Your task to perform on an android device: empty trash in the gmail app Image 0: 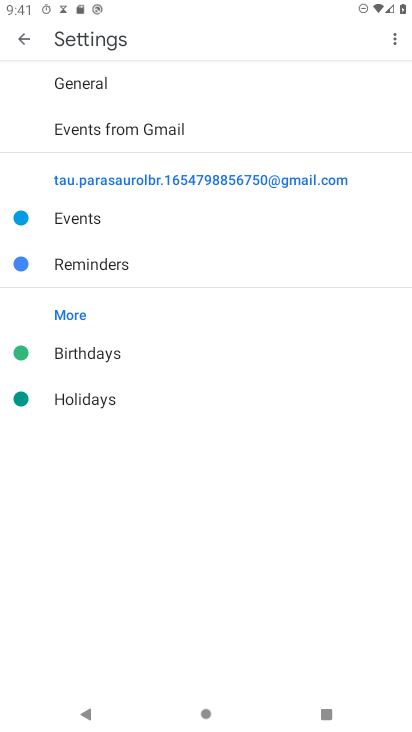
Step 0: press back button
Your task to perform on an android device: empty trash in the gmail app Image 1: 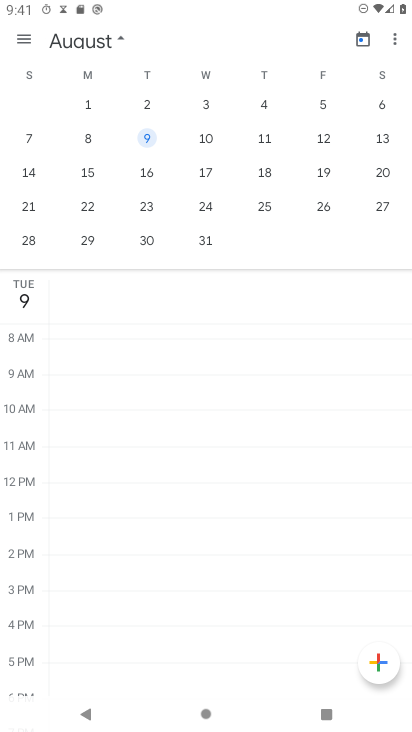
Step 1: press home button
Your task to perform on an android device: empty trash in the gmail app Image 2: 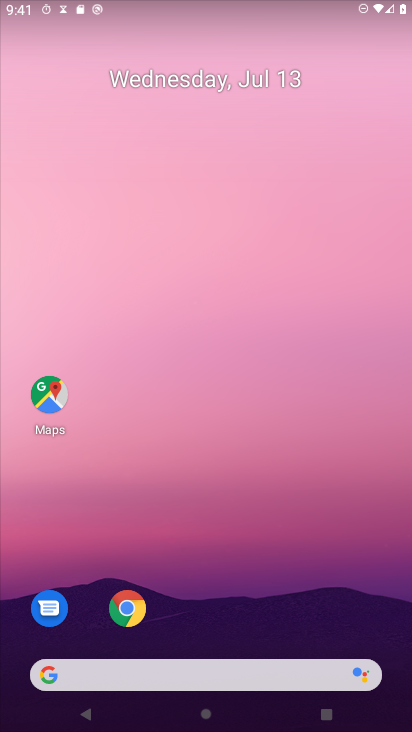
Step 2: drag from (264, 619) to (184, 97)
Your task to perform on an android device: empty trash in the gmail app Image 3: 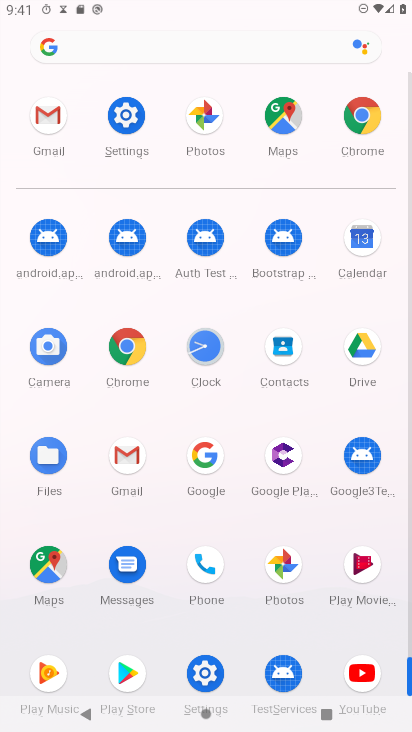
Step 3: click (126, 457)
Your task to perform on an android device: empty trash in the gmail app Image 4: 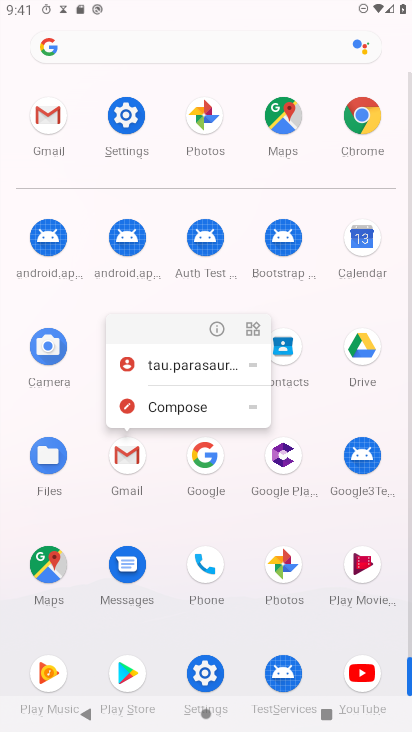
Step 4: click (136, 443)
Your task to perform on an android device: empty trash in the gmail app Image 5: 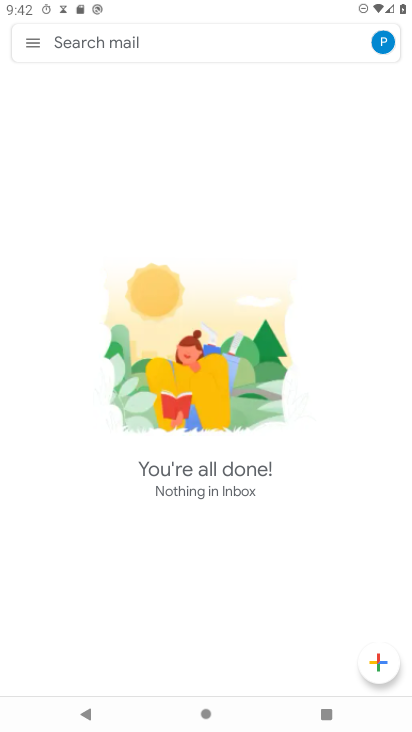
Step 5: click (34, 45)
Your task to perform on an android device: empty trash in the gmail app Image 6: 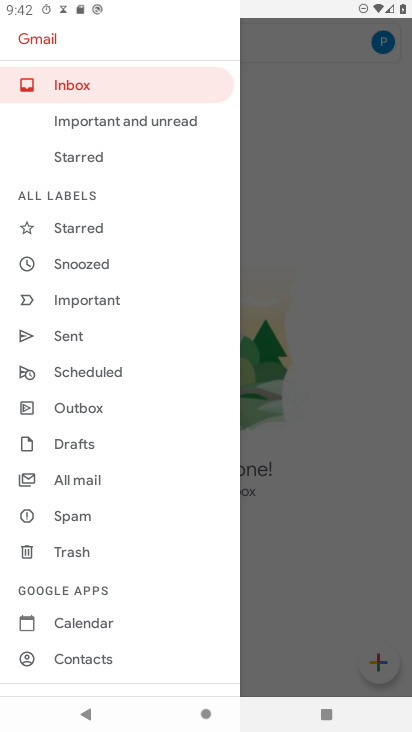
Step 6: click (69, 487)
Your task to perform on an android device: empty trash in the gmail app Image 7: 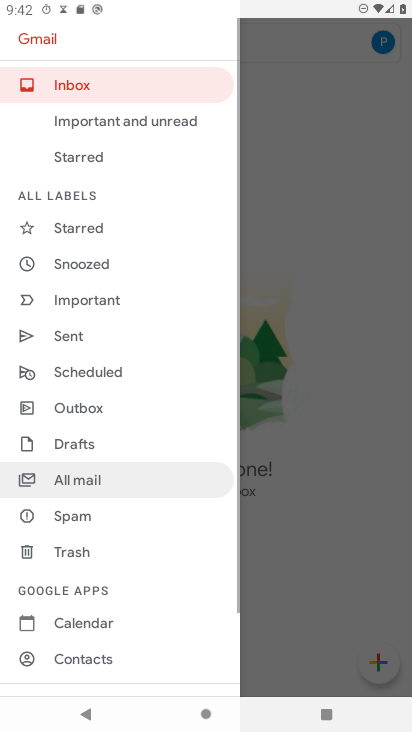
Step 7: click (71, 487)
Your task to perform on an android device: empty trash in the gmail app Image 8: 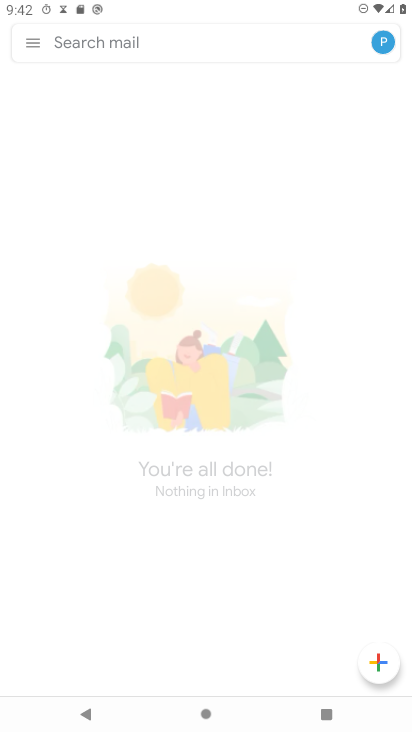
Step 8: click (68, 483)
Your task to perform on an android device: empty trash in the gmail app Image 9: 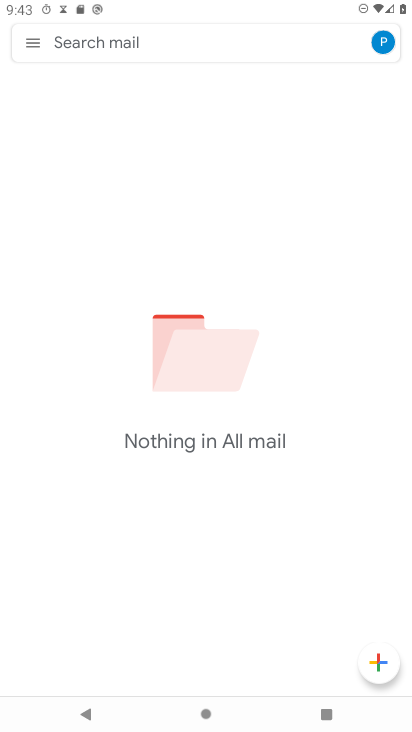
Step 9: press back button
Your task to perform on an android device: empty trash in the gmail app Image 10: 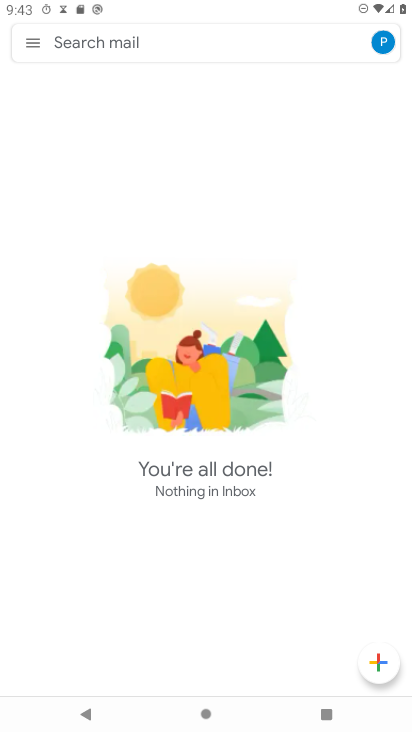
Step 10: click (18, 37)
Your task to perform on an android device: empty trash in the gmail app Image 11: 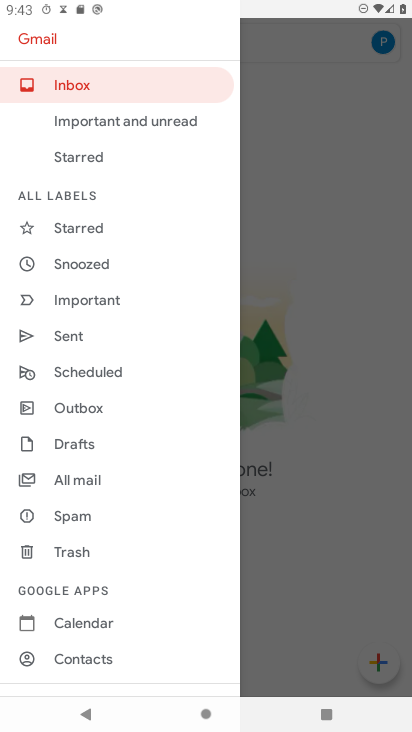
Step 11: click (78, 548)
Your task to perform on an android device: empty trash in the gmail app Image 12: 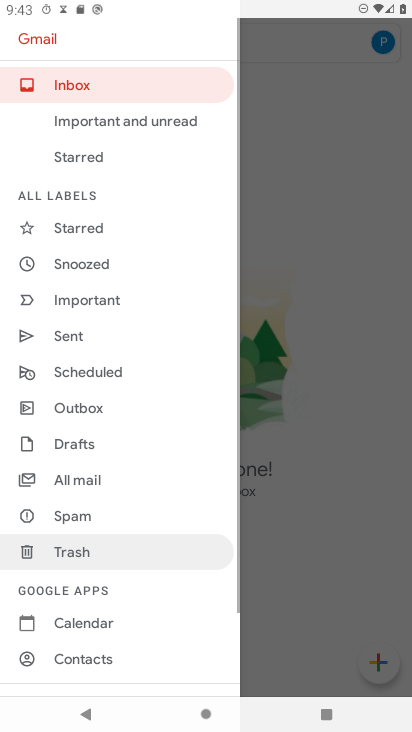
Step 12: click (78, 548)
Your task to perform on an android device: empty trash in the gmail app Image 13: 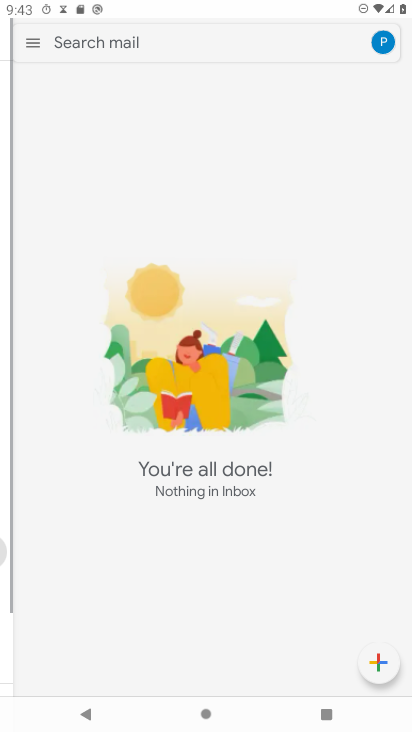
Step 13: click (78, 548)
Your task to perform on an android device: empty trash in the gmail app Image 14: 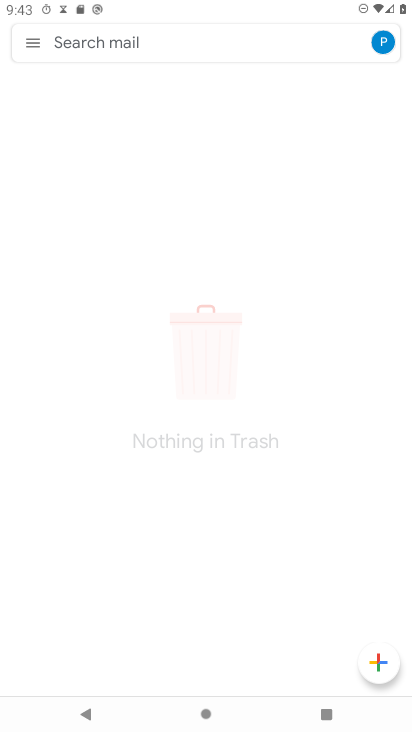
Step 14: click (78, 549)
Your task to perform on an android device: empty trash in the gmail app Image 15: 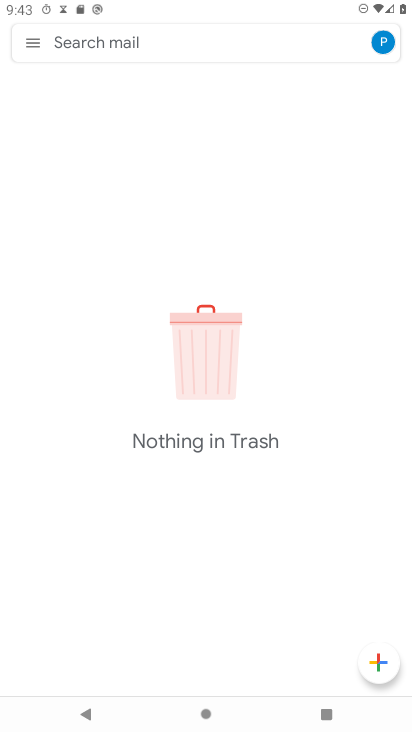
Step 15: task complete